Your task to perform on an android device: Show me productivity apps on the Play Store Image 0: 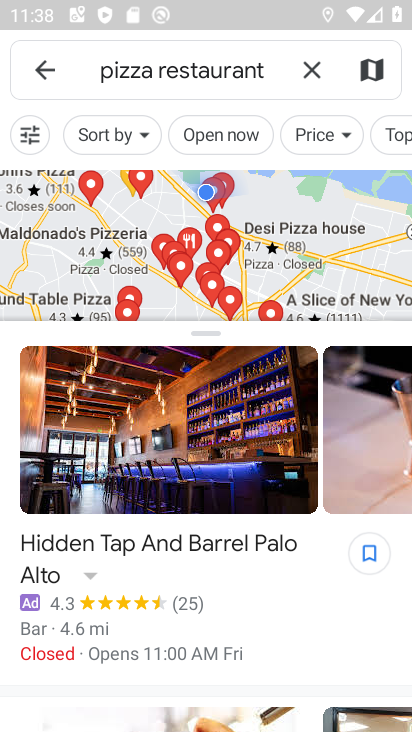
Step 0: click (280, 217)
Your task to perform on an android device: Show me productivity apps on the Play Store Image 1: 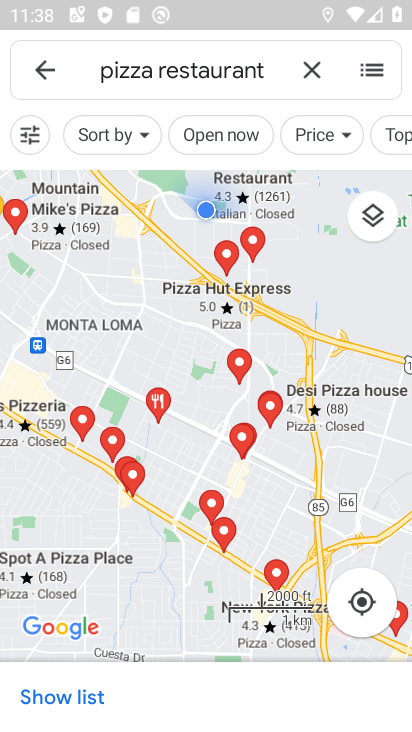
Step 1: press home button
Your task to perform on an android device: Show me productivity apps on the Play Store Image 2: 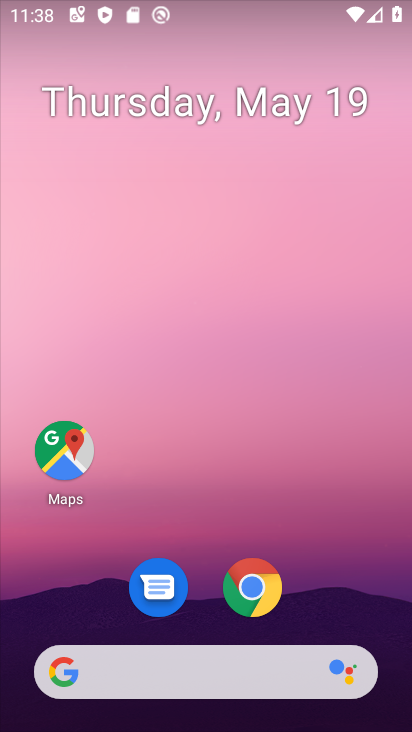
Step 2: drag from (213, 683) to (162, 76)
Your task to perform on an android device: Show me productivity apps on the Play Store Image 3: 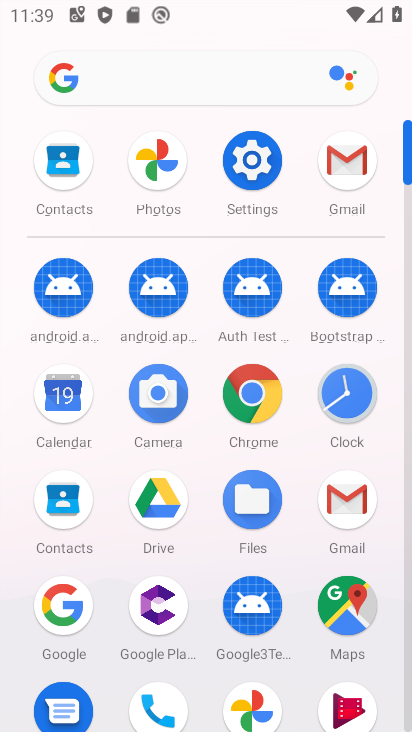
Step 3: drag from (188, 654) to (159, 234)
Your task to perform on an android device: Show me productivity apps on the Play Store Image 4: 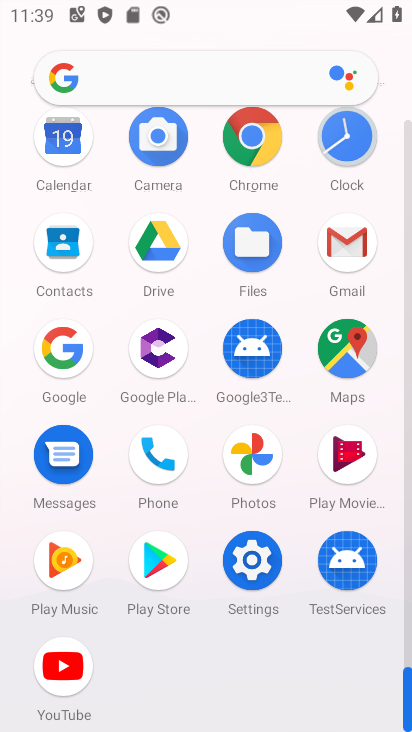
Step 4: click (153, 577)
Your task to perform on an android device: Show me productivity apps on the Play Store Image 5: 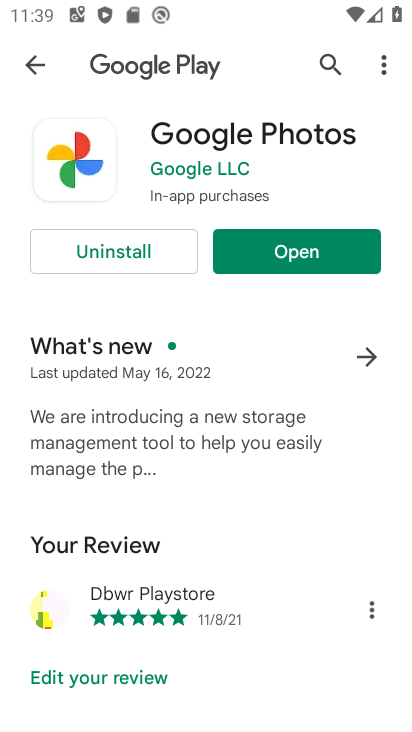
Step 5: click (42, 56)
Your task to perform on an android device: Show me productivity apps on the Play Store Image 6: 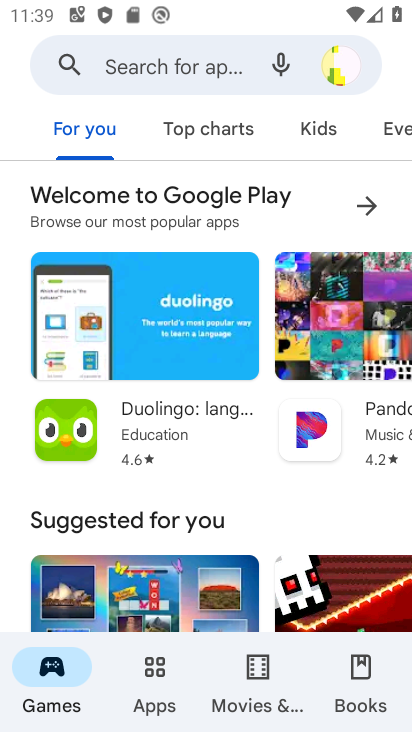
Step 6: drag from (152, 582) to (113, 173)
Your task to perform on an android device: Show me productivity apps on the Play Store Image 7: 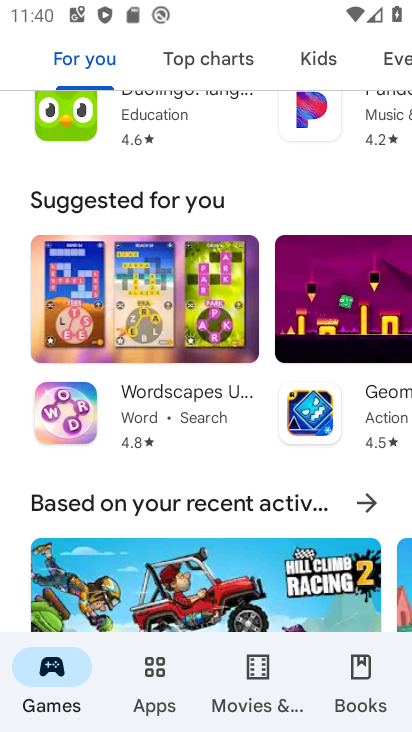
Step 7: click (156, 694)
Your task to perform on an android device: Show me productivity apps on the Play Store Image 8: 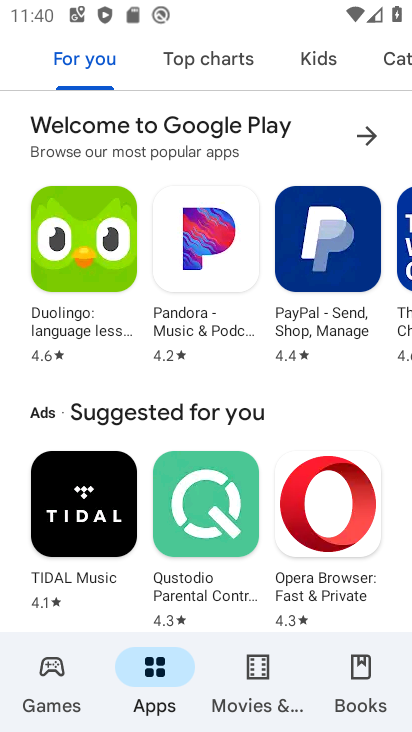
Step 8: click (386, 66)
Your task to perform on an android device: Show me productivity apps on the Play Store Image 9: 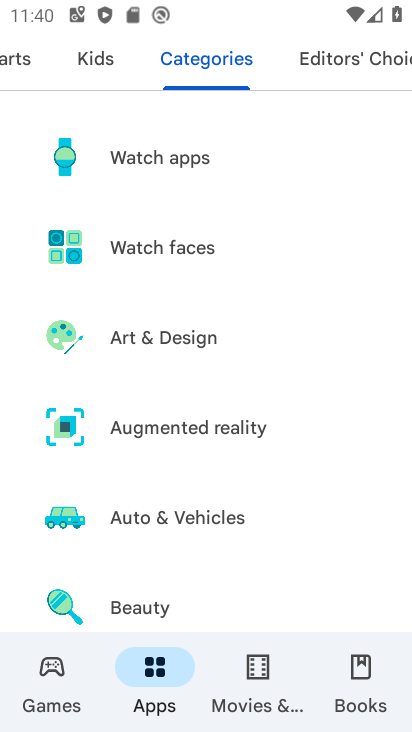
Step 9: drag from (251, 561) to (23, 19)
Your task to perform on an android device: Show me productivity apps on the Play Store Image 10: 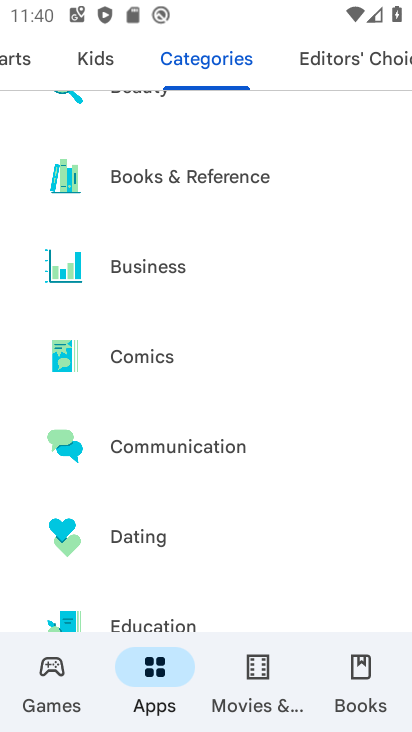
Step 10: drag from (185, 541) to (77, 39)
Your task to perform on an android device: Show me productivity apps on the Play Store Image 11: 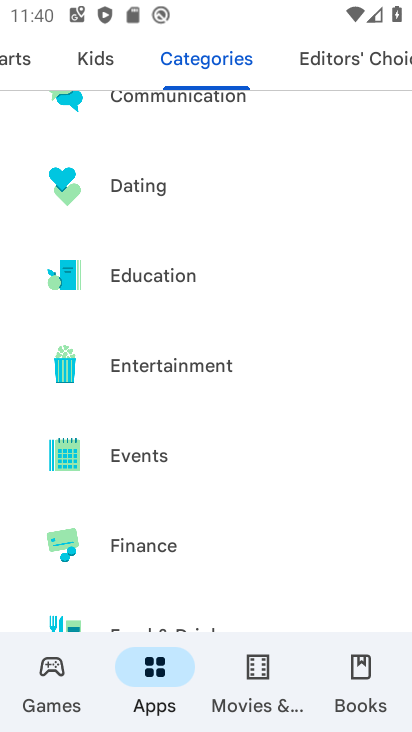
Step 11: drag from (250, 580) to (230, 23)
Your task to perform on an android device: Show me productivity apps on the Play Store Image 12: 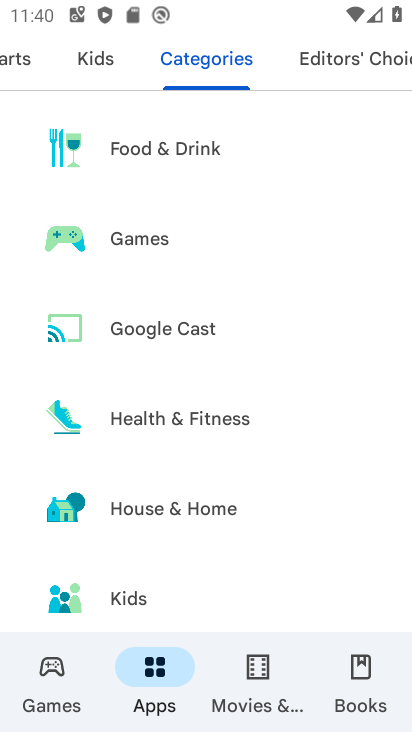
Step 12: drag from (255, 513) to (149, 36)
Your task to perform on an android device: Show me productivity apps on the Play Store Image 13: 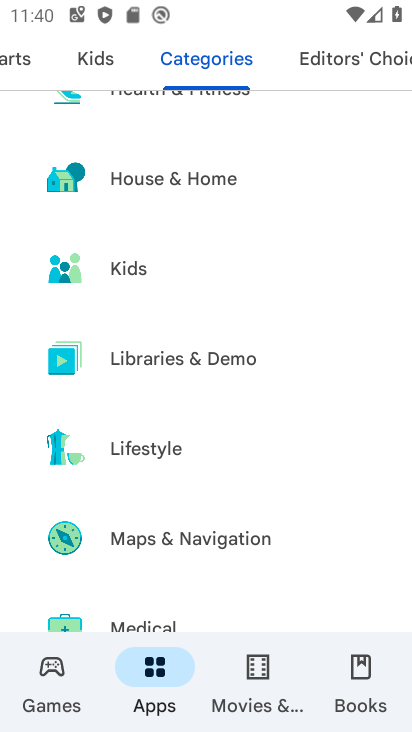
Step 13: drag from (307, 506) to (57, 97)
Your task to perform on an android device: Show me productivity apps on the Play Store Image 14: 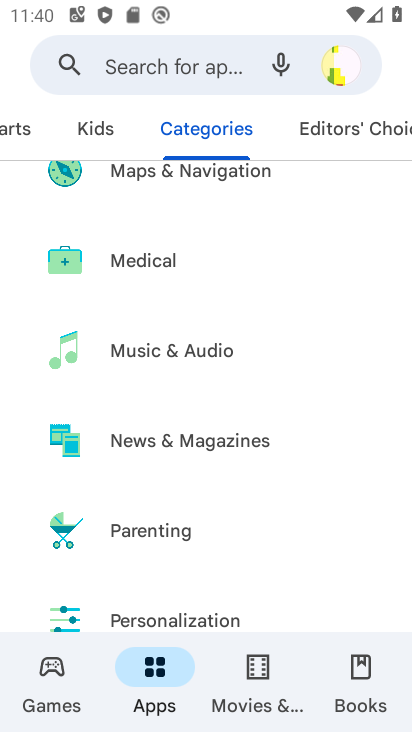
Step 14: drag from (173, 600) to (131, 10)
Your task to perform on an android device: Show me productivity apps on the Play Store Image 15: 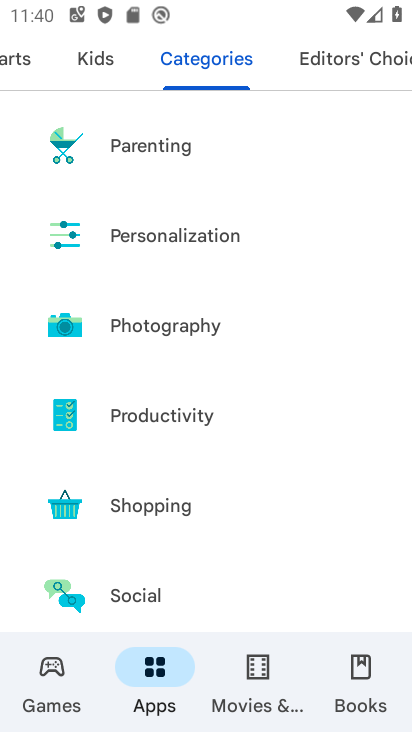
Step 15: click (165, 414)
Your task to perform on an android device: Show me productivity apps on the Play Store Image 16: 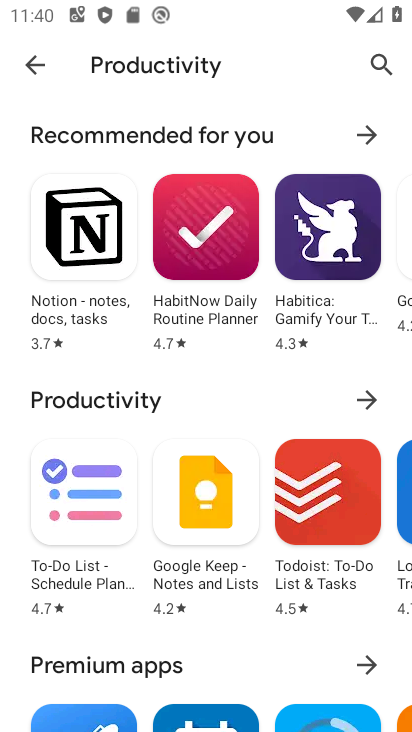
Step 16: task complete